Your task to perform on an android device: add a contact in the contacts app Image 0: 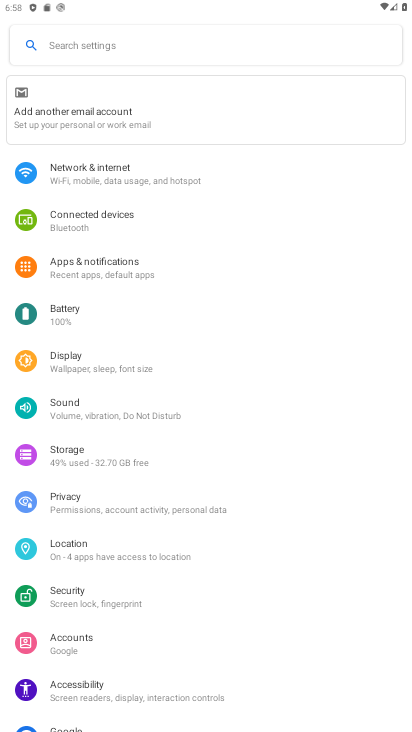
Step 0: press home button
Your task to perform on an android device: add a contact in the contacts app Image 1: 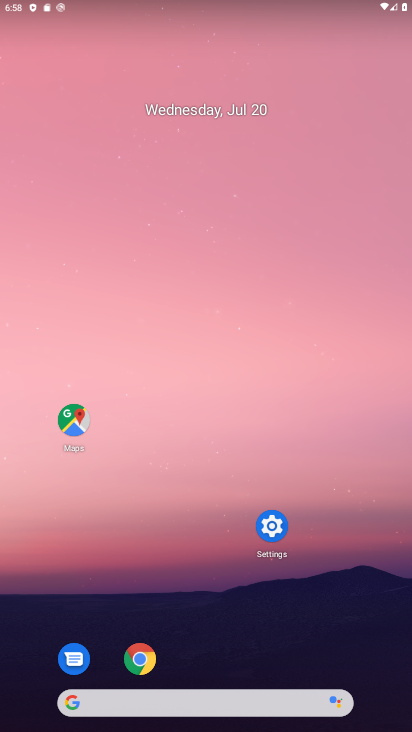
Step 1: drag from (239, 724) to (271, 215)
Your task to perform on an android device: add a contact in the contacts app Image 2: 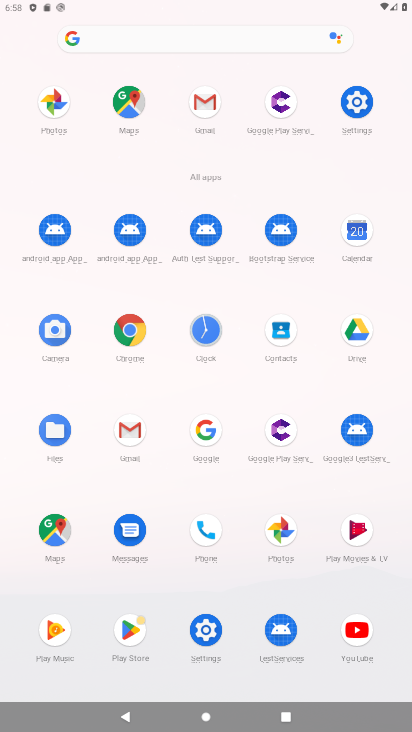
Step 2: click (208, 532)
Your task to perform on an android device: add a contact in the contacts app Image 3: 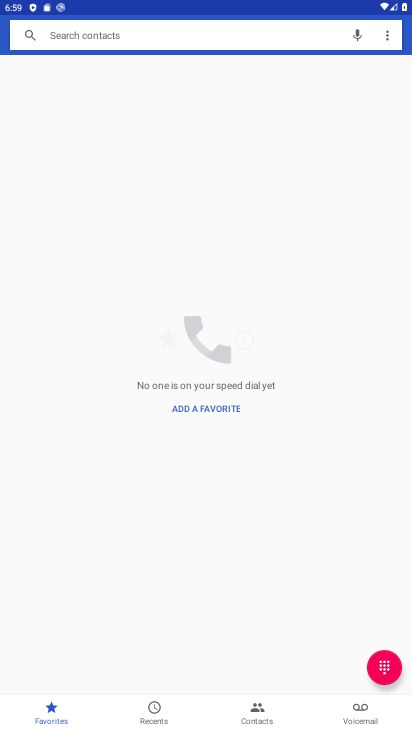
Step 3: click (254, 713)
Your task to perform on an android device: add a contact in the contacts app Image 4: 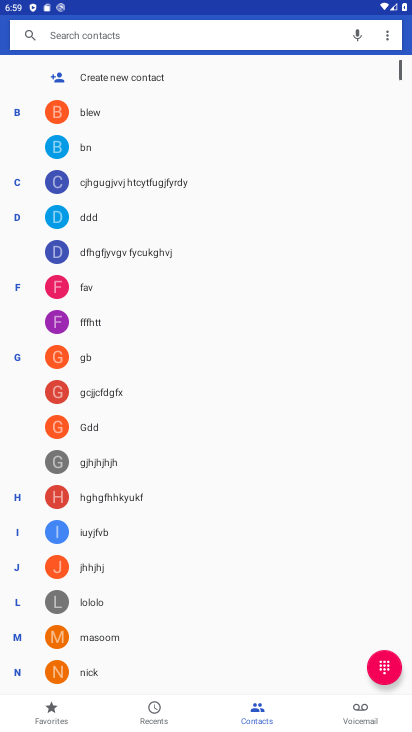
Step 4: click (108, 81)
Your task to perform on an android device: add a contact in the contacts app Image 5: 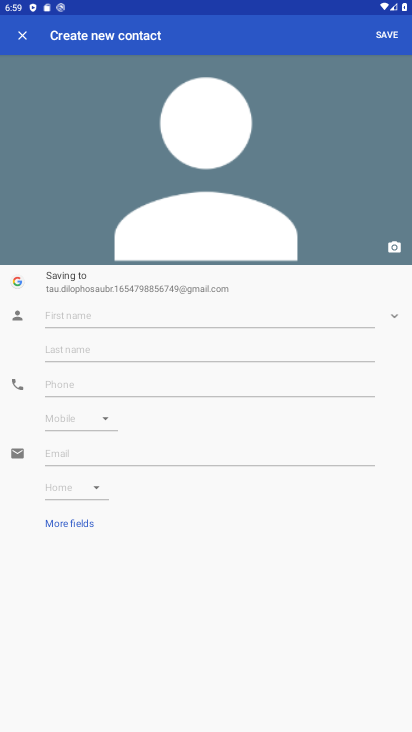
Step 5: click (86, 309)
Your task to perform on an android device: add a contact in the contacts app Image 6: 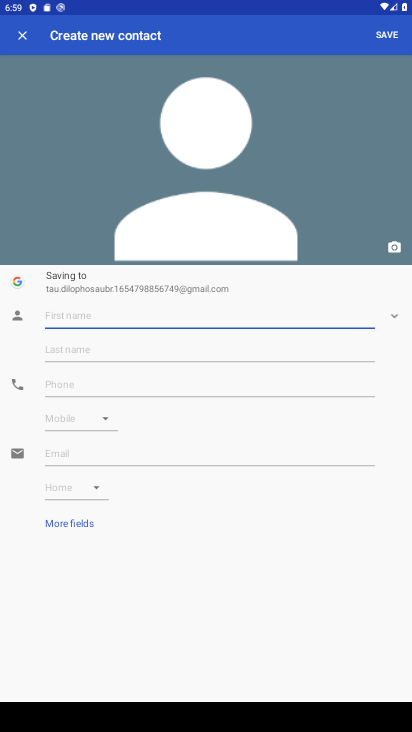
Step 6: click (93, 314)
Your task to perform on an android device: add a contact in the contacts app Image 7: 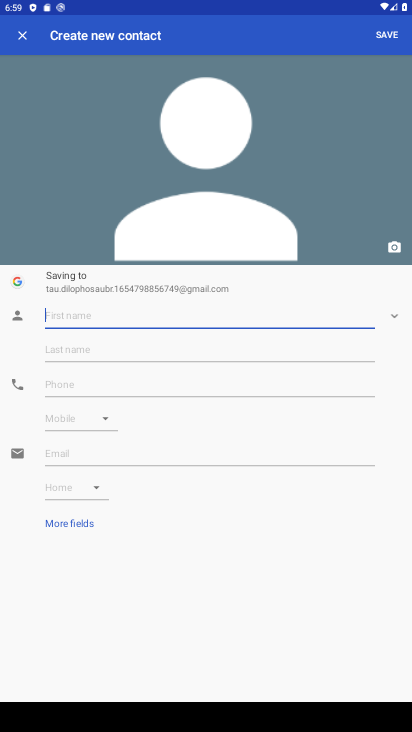
Step 7: click (87, 312)
Your task to perform on an android device: add a contact in the contacts app Image 8: 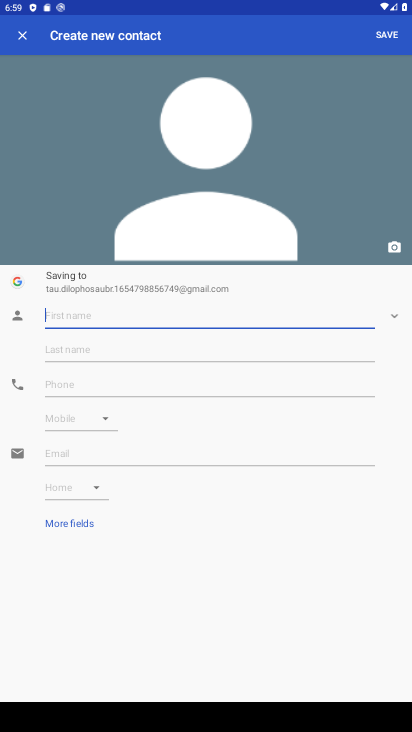
Step 8: drag from (376, 730) to (377, 611)
Your task to perform on an android device: add a contact in the contacts app Image 9: 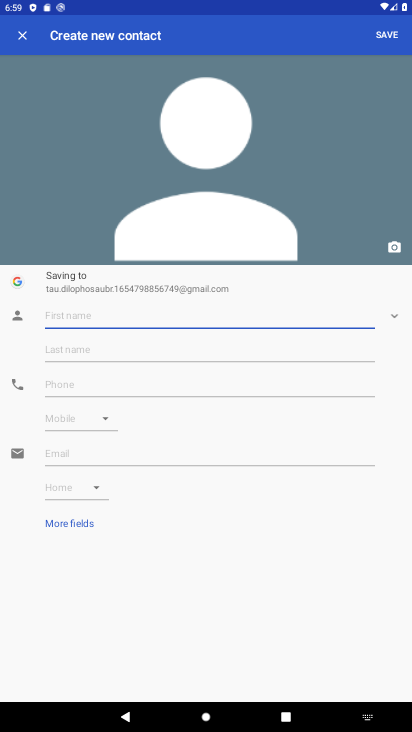
Step 9: click (370, 725)
Your task to perform on an android device: add a contact in the contacts app Image 10: 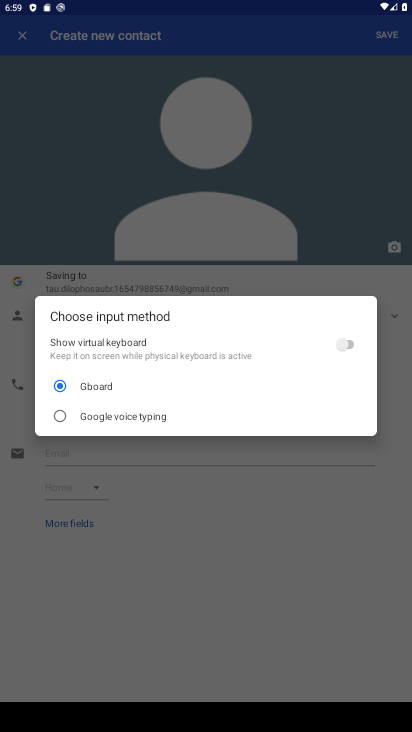
Step 10: click (345, 344)
Your task to perform on an android device: add a contact in the contacts app Image 11: 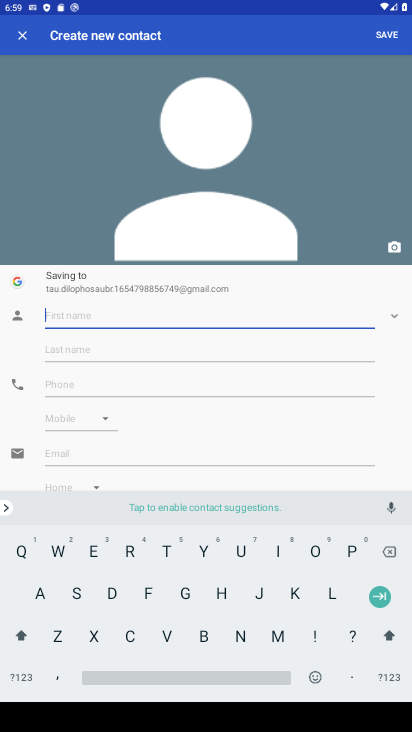
Step 11: click (208, 607)
Your task to perform on an android device: add a contact in the contacts app Image 12: 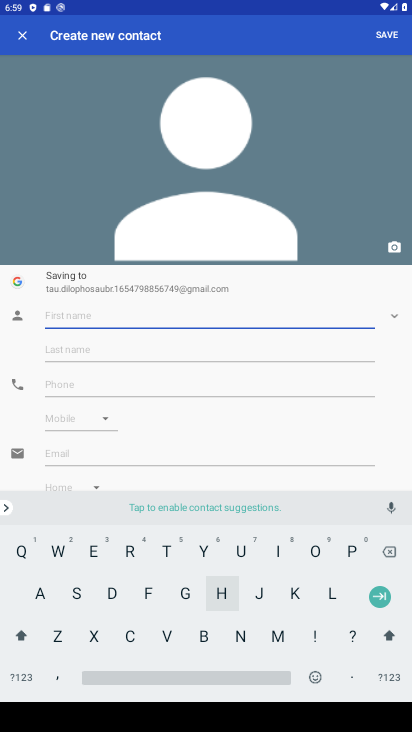
Step 12: click (139, 604)
Your task to perform on an android device: add a contact in the contacts app Image 13: 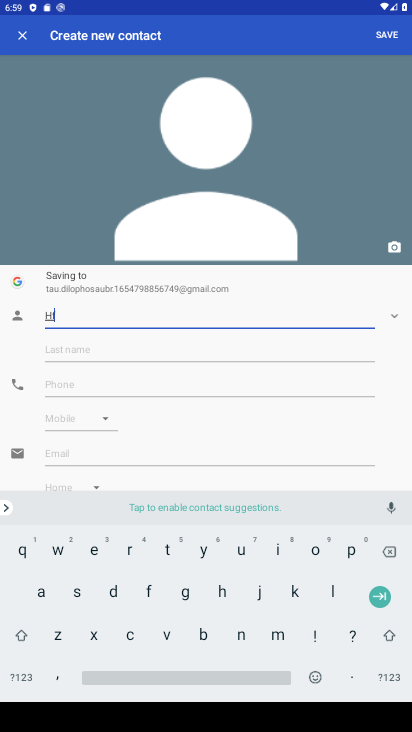
Step 13: click (78, 605)
Your task to perform on an android device: add a contact in the contacts app Image 14: 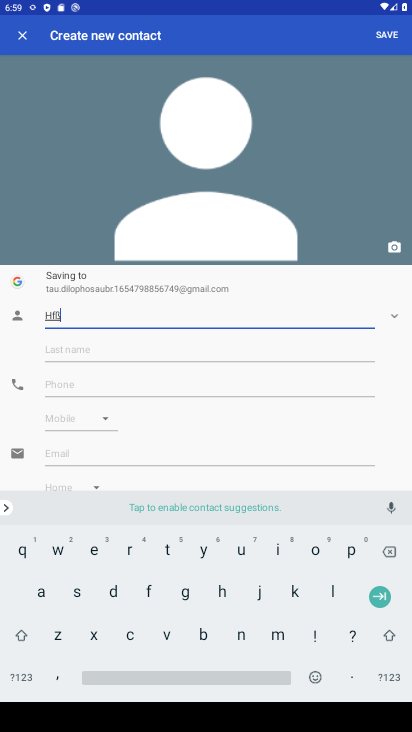
Step 14: click (65, 383)
Your task to perform on an android device: add a contact in the contacts app Image 15: 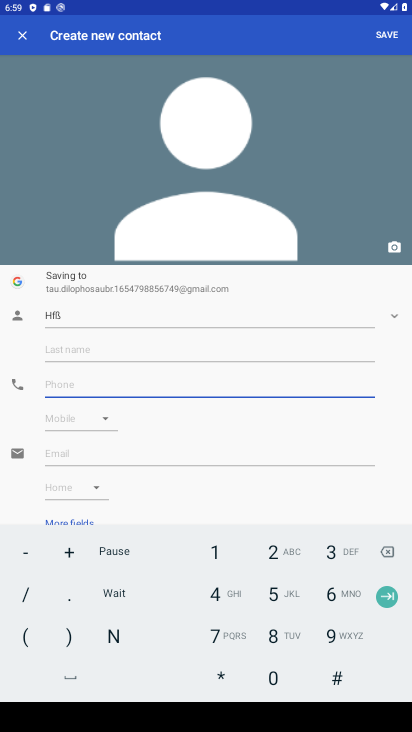
Step 15: click (281, 597)
Your task to perform on an android device: add a contact in the contacts app Image 16: 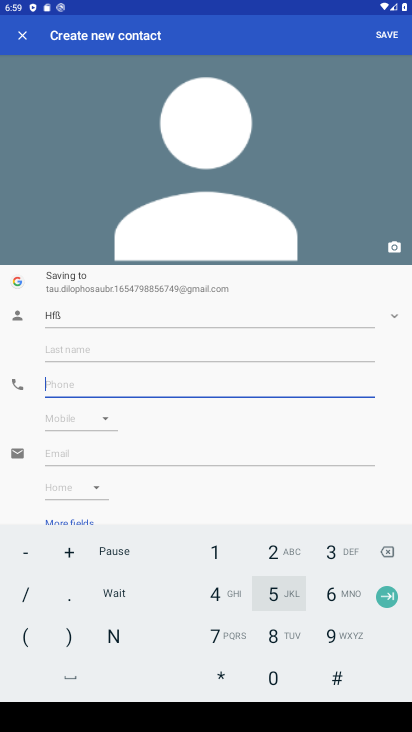
Step 16: click (249, 597)
Your task to perform on an android device: add a contact in the contacts app Image 17: 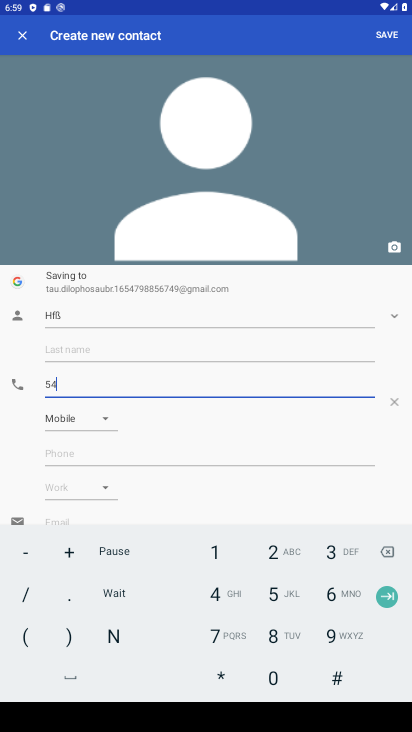
Step 17: click (362, 572)
Your task to perform on an android device: add a contact in the contacts app Image 18: 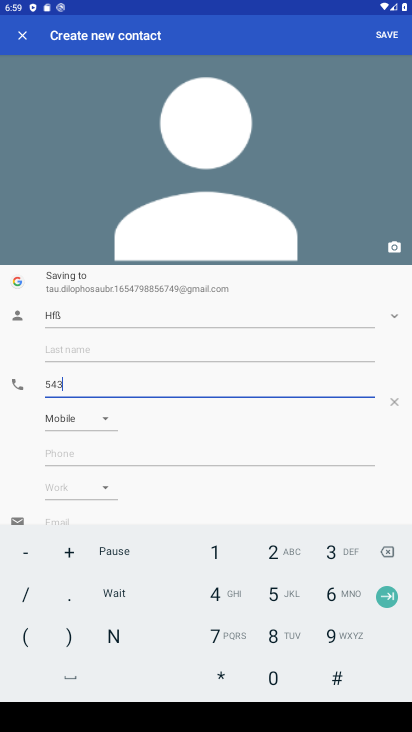
Step 18: click (291, 662)
Your task to perform on an android device: add a contact in the contacts app Image 19: 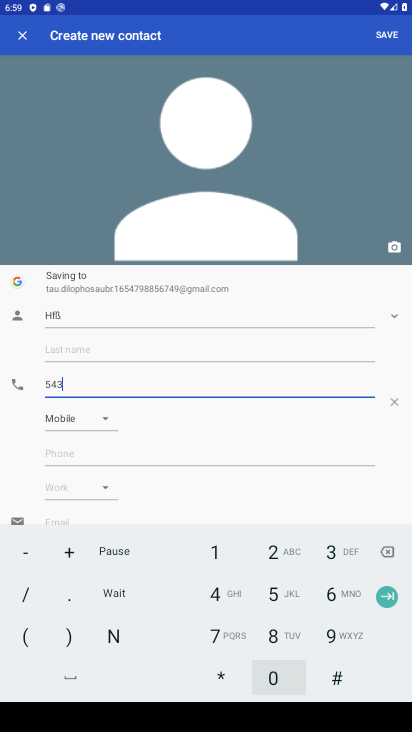
Step 19: click (271, 674)
Your task to perform on an android device: add a contact in the contacts app Image 20: 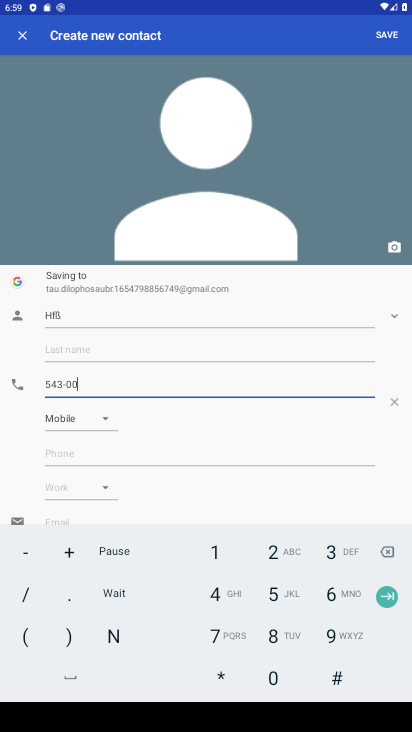
Step 20: click (285, 630)
Your task to perform on an android device: add a contact in the contacts app Image 21: 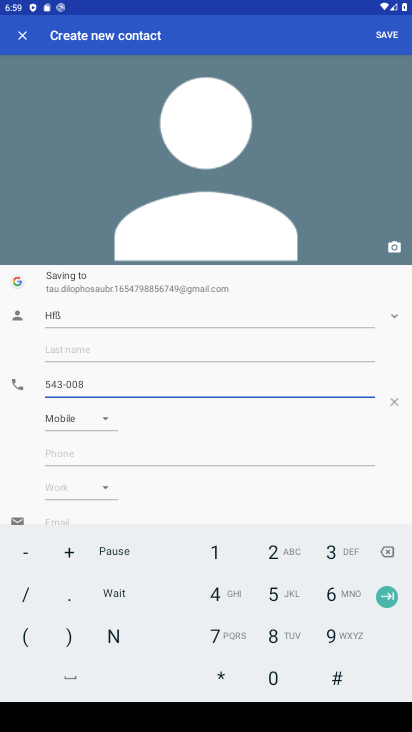
Step 21: click (209, 556)
Your task to perform on an android device: add a contact in the contacts app Image 22: 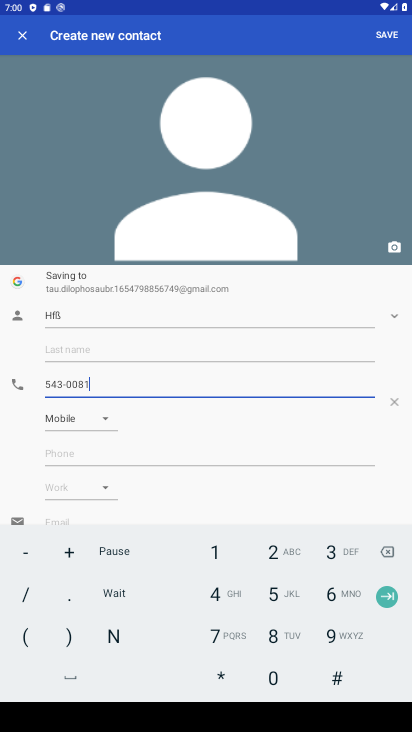
Step 22: click (372, 43)
Your task to perform on an android device: add a contact in the contacts app Image 23: 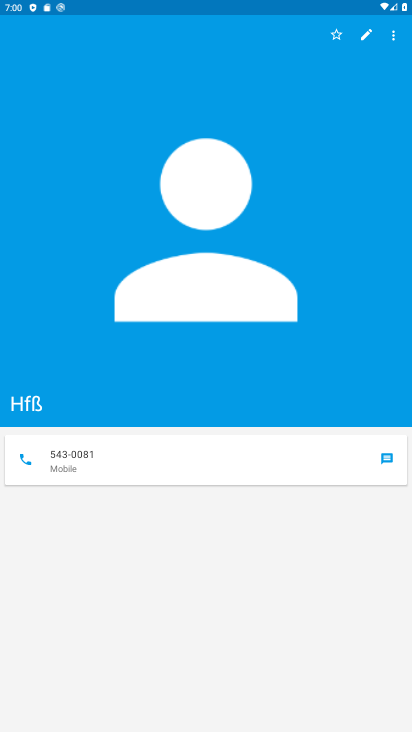
Step 23: task complete